Your task to perform on an android device: Search for a home improvement project you can do. Image 0: 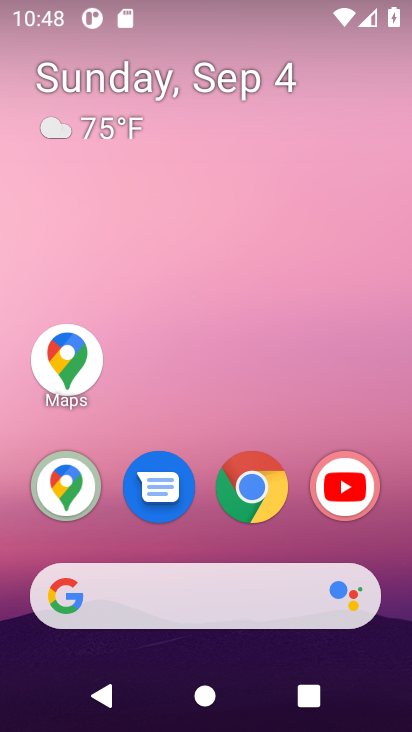
Step 0: click (241, 484)
Your task to perform on an android device: Search for a home improvement project you can do. Image 1: 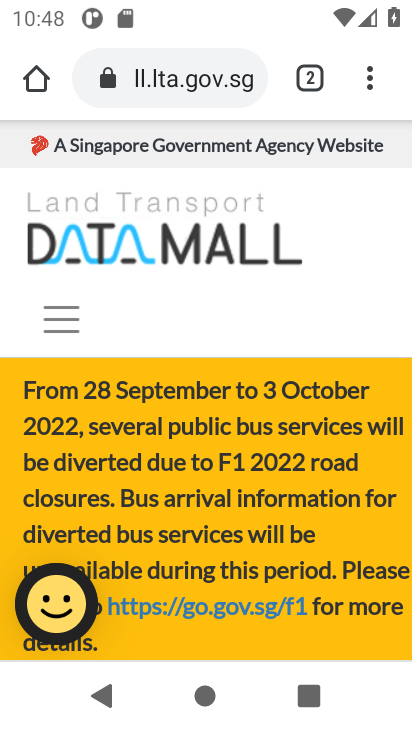
Step 1: task complete